Your task to perform on an android device: open wifi settings Image 0: 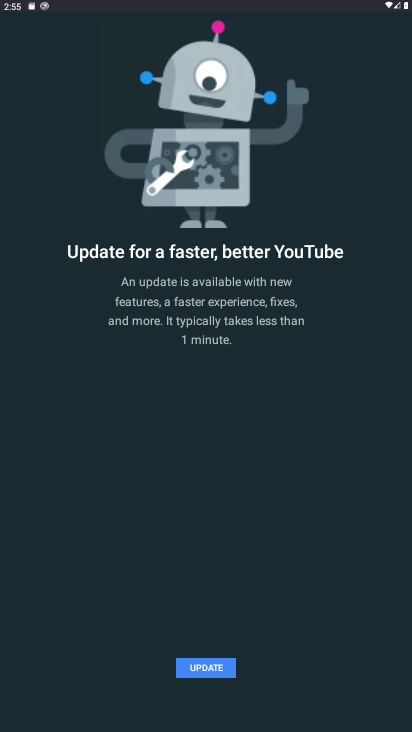
Step 0: press home button
Your task to perform on an android device: open wifi settings Image 1: 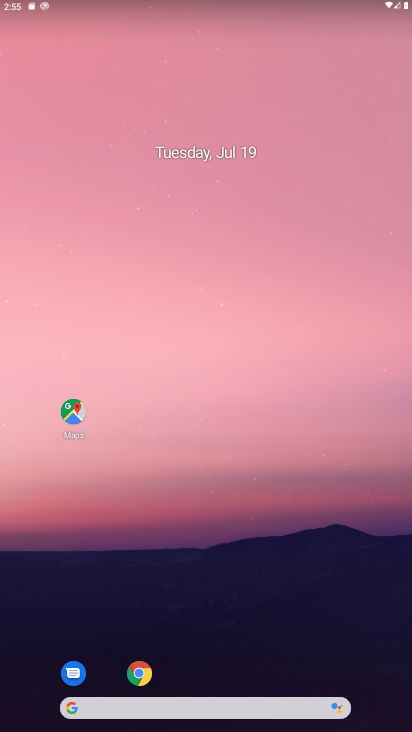
Step 1: drag from (208, 602) to (236, 39)
Your task to perform on an android device: open wifi settings Image 2: 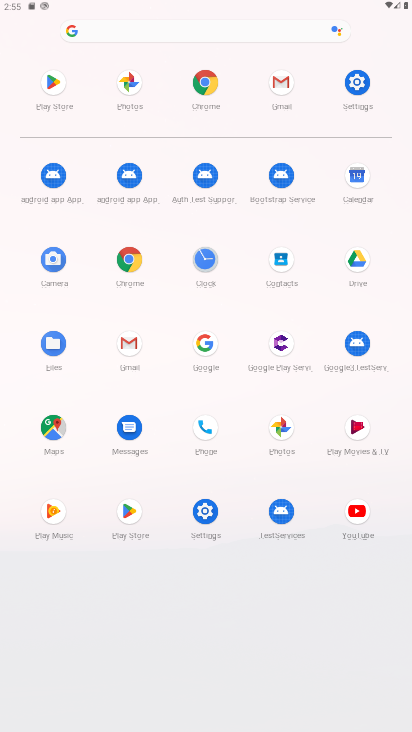
Step 2: click (211, 518)
Your task to perform on an android device: open wifi settings Image 3: 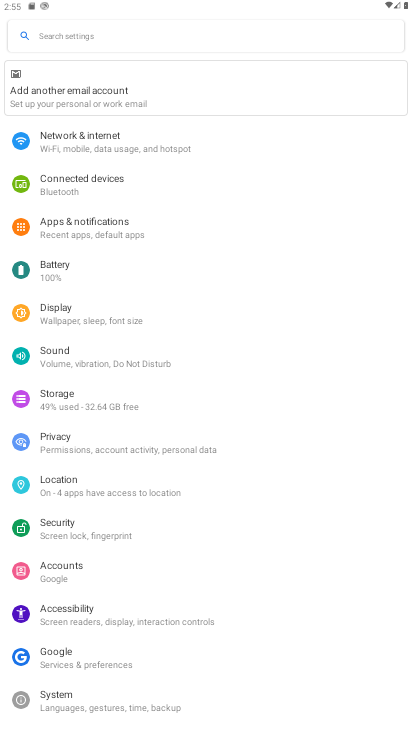
Step 3: click (80, 88)
Your task to perform on an android device: open wifi settings Image 4: 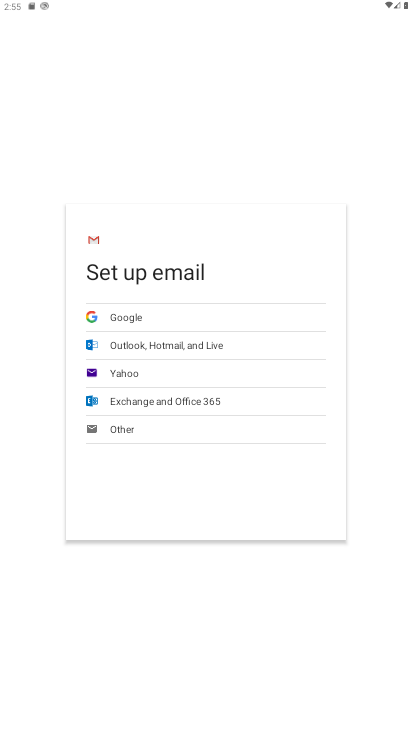
Step 4: press home button
Your task to perform on an android device: open wifi settings Image 5: 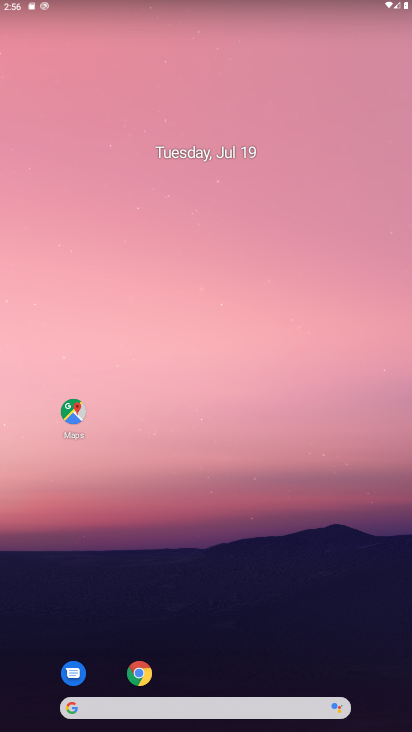
Step 5: click (267, 13)
Your task to perform on an android device: open wifi settings Image 6: 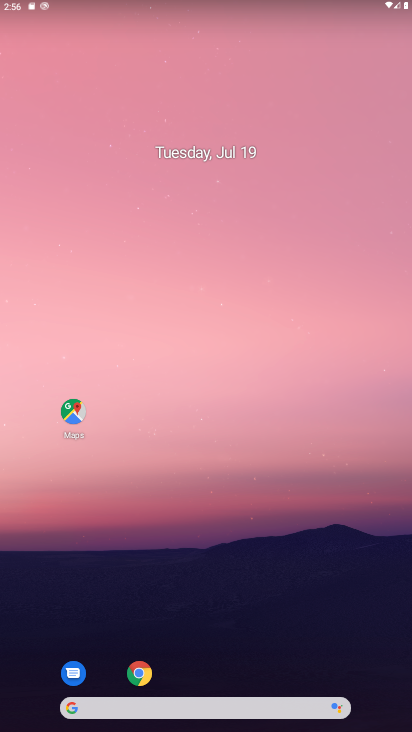
Step 6: drag from (203, 620) to (274, 73)
Your task to perform on an android device: open wifi settings Image 7: 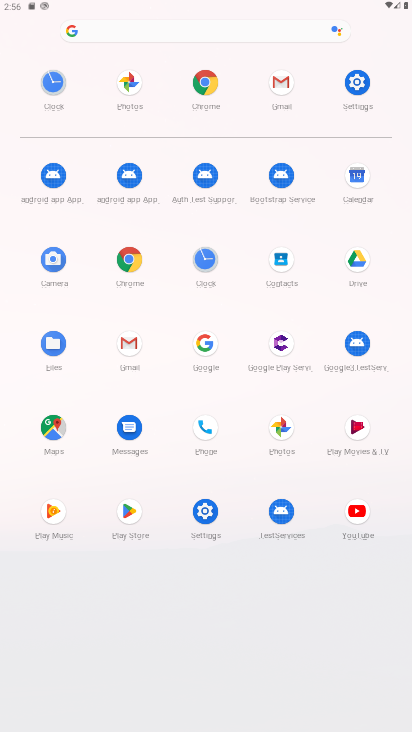
Step 7: click (213, 526)
Your task to perform on an android device: open wifi settings Image 8: 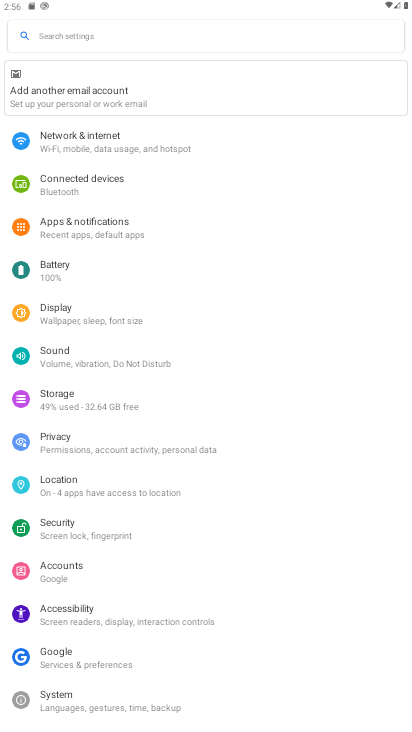
Step 8: click (137, 148)
Your task to perform on an android device: open wifi settings Image 9: 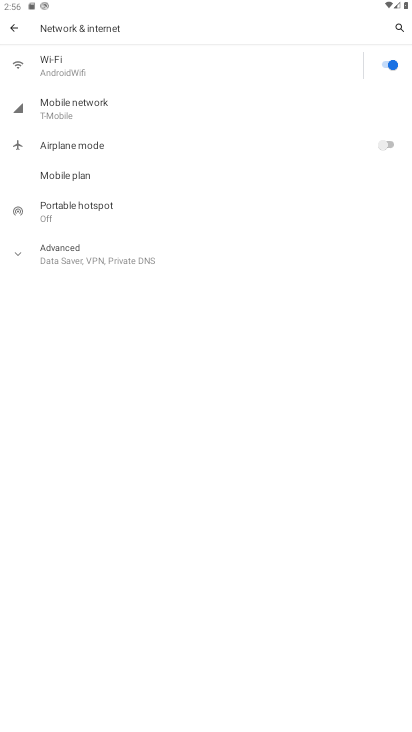
Step 9: click (107, 67)
Your task to perform on an android device: open wifi settings Image 10: 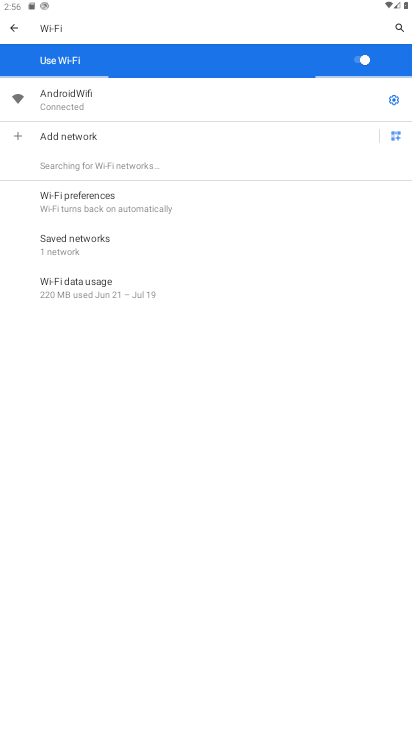
Step 10: task complete